Your task to perform on an android device: open app "HBO Max: Stream TV & Movies" (install if not already installed) Image 0: 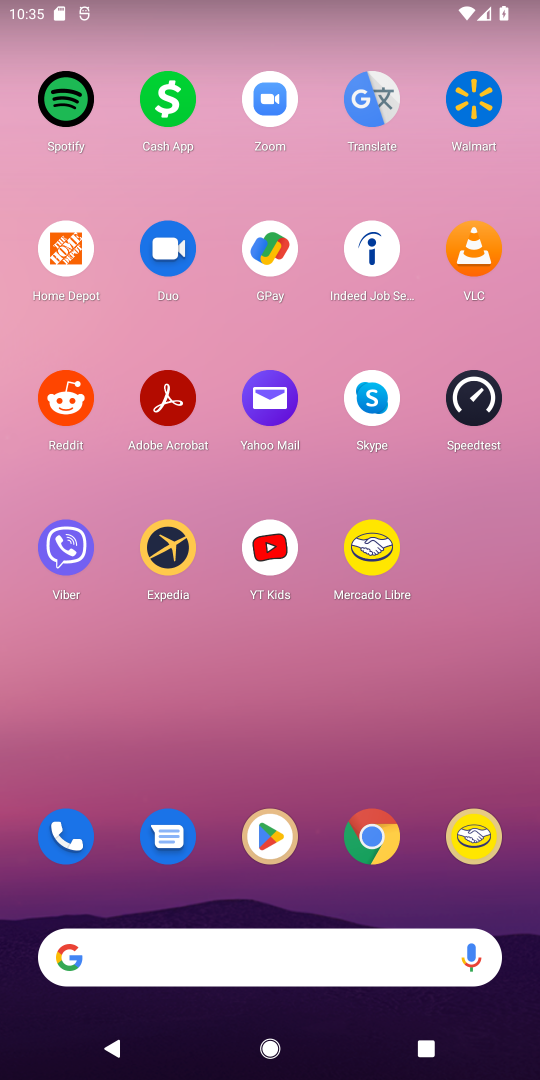
Step 0: click (247, 819)
Your task to perform on an android device: open app "HBO Max: Stream TV & Movies" (install if not already installed) Image 1: 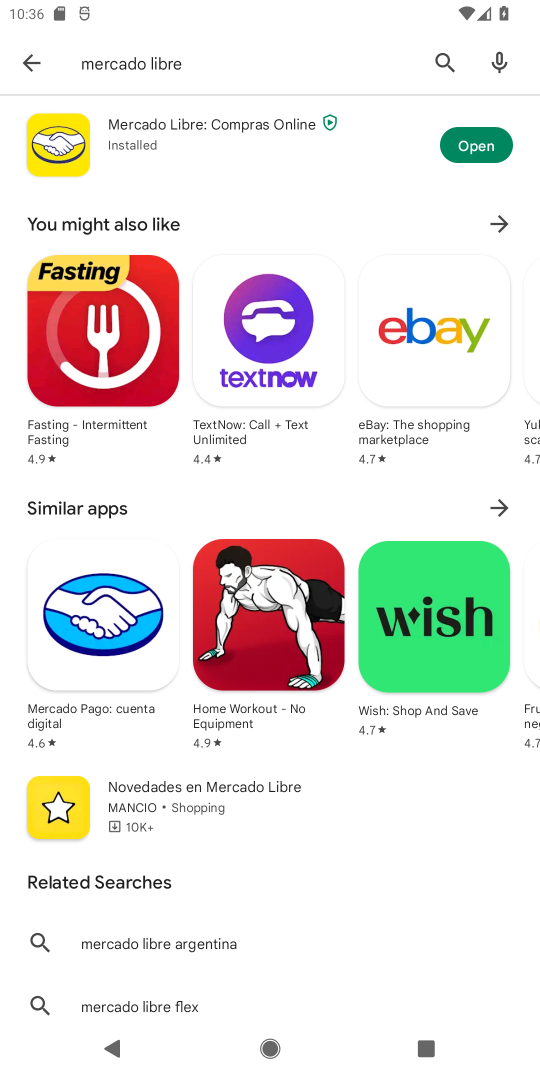
Step 1: click (474, 65)
Your task to perform on an android device: open app "HBO Max: Stream TV & Movies" (install if not already installed) Image 2: 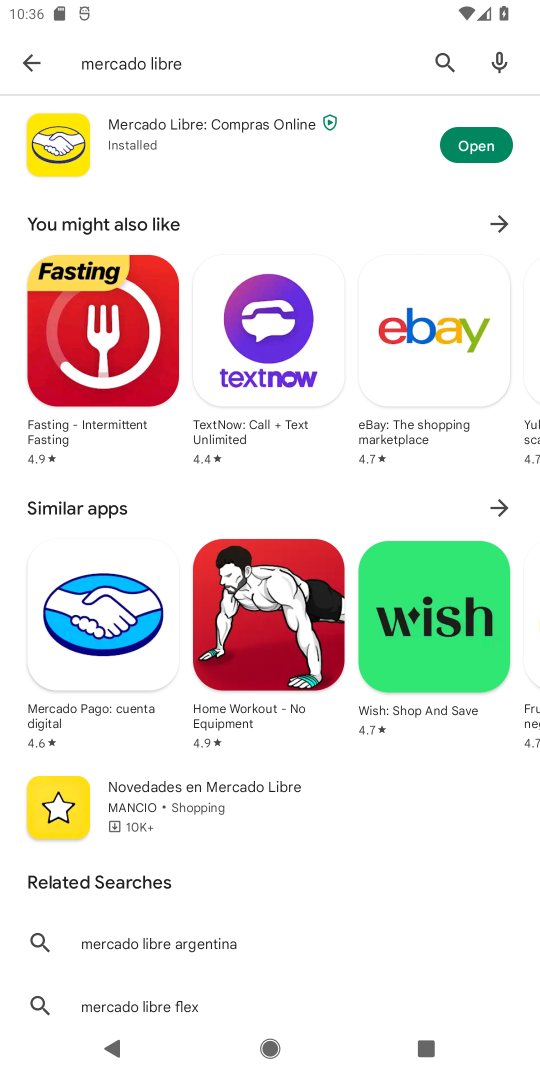
Step 2: click (442, 71)
Your task to perform on an android device: open app "HBO Max: Stream TV & Movies" (install if not already installed) Image 3: 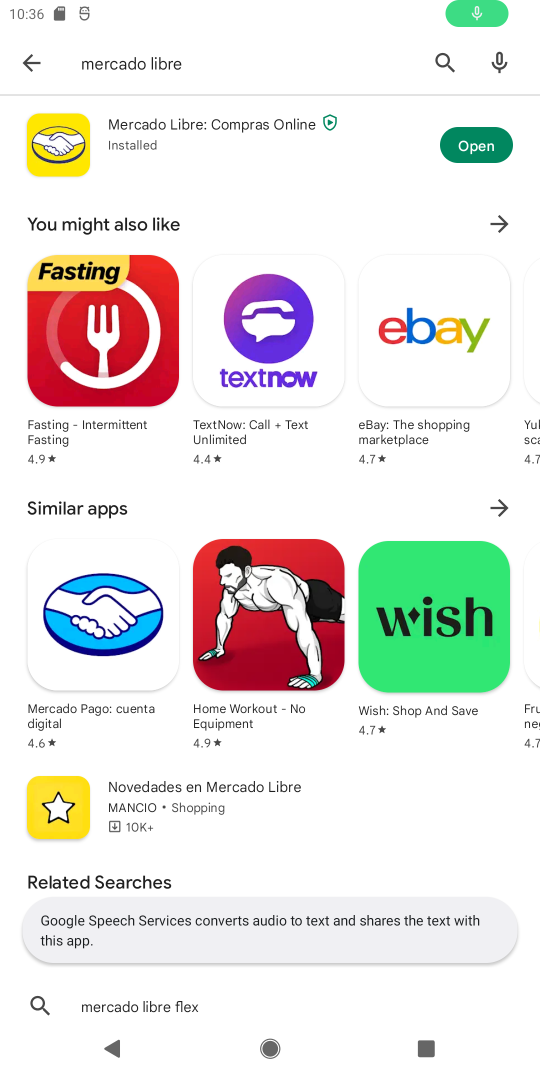
Step 3: click (440, 66)
Your task to perform on an android device: open app "HBO Max: Stream TV & Movies" (install if not already installed) Image 4: 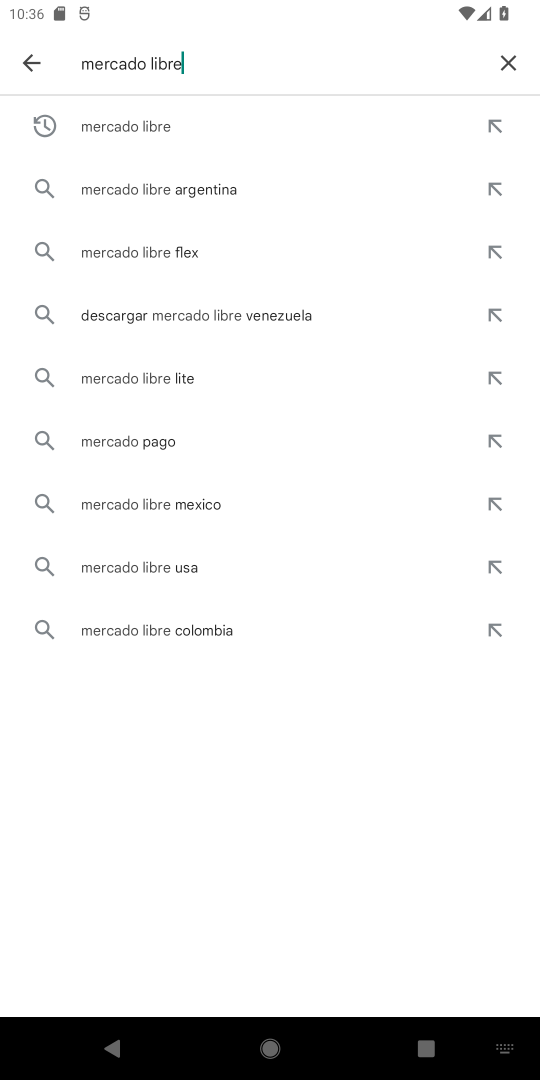
Step 4: click (513, 54)
Your task to perform on an android device: open app "HBO Max: Stream TV & Movies" (install if not already installed) Image 5: 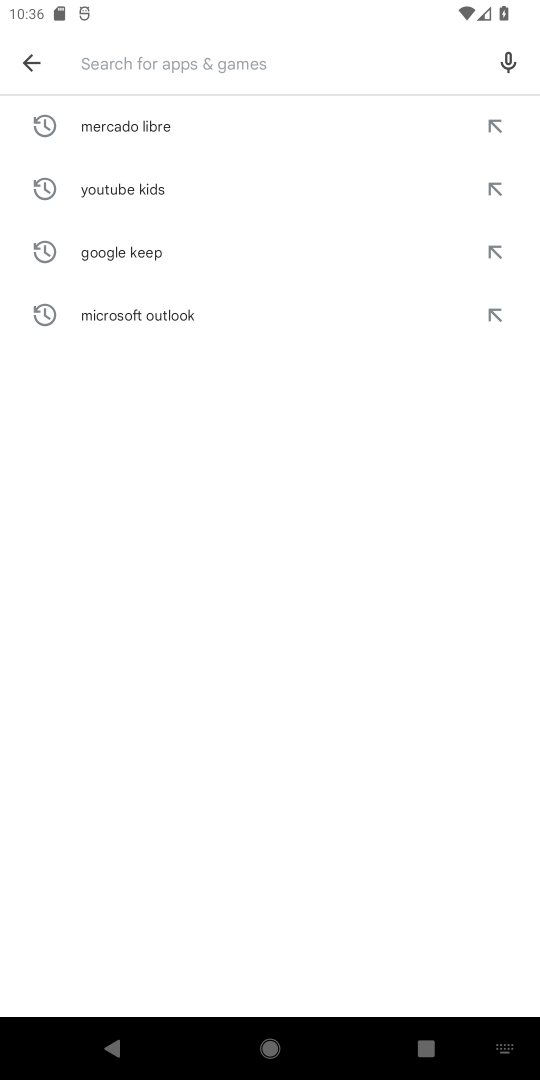
Step 5: type "HBO Max: Stream TV & Movies"
Your task to perform on an android device: open app "HBO Max: Stream TV & Movies" (install if not already installed) Image 6: 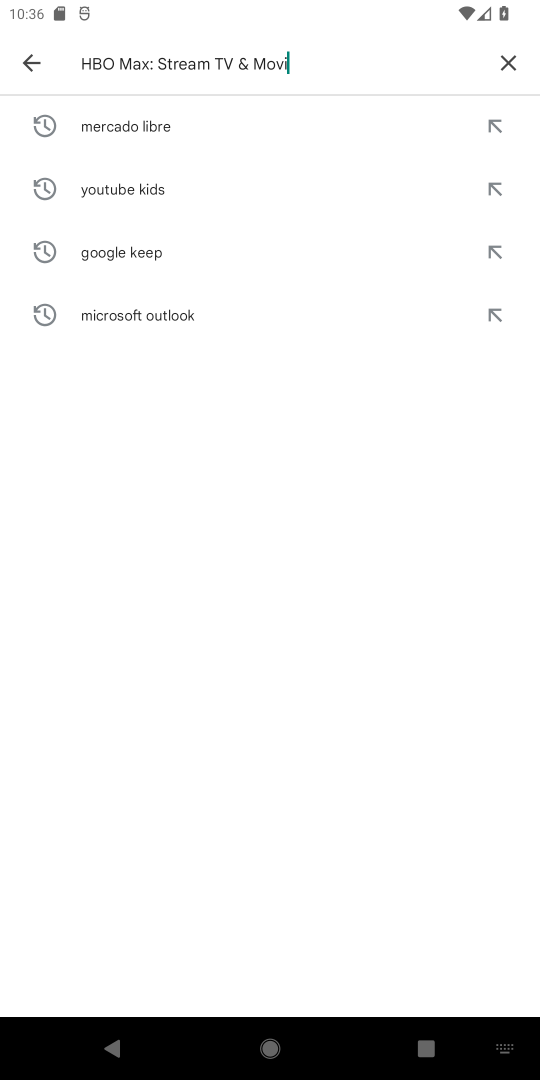
Step 6: type ""
Your task to perform on an android device: open app "HBO Max: Stream TV & Movies" (install if not already installed) Image 7: 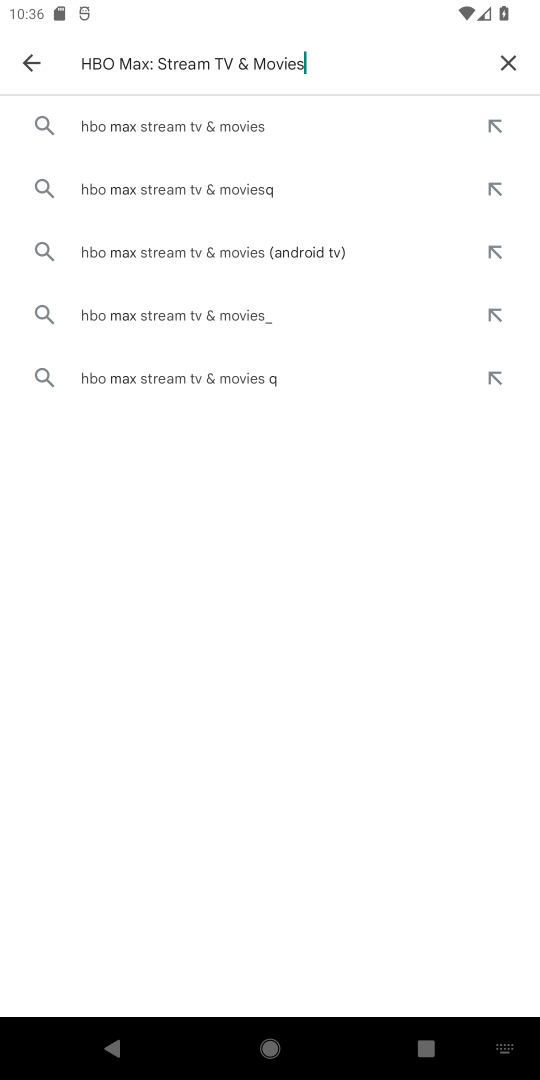
Step 7: click (168, 129)
Your task to perform on an android device: open app "HBO Max: Stream TV & Movies" (install if not already installed) Image 8: 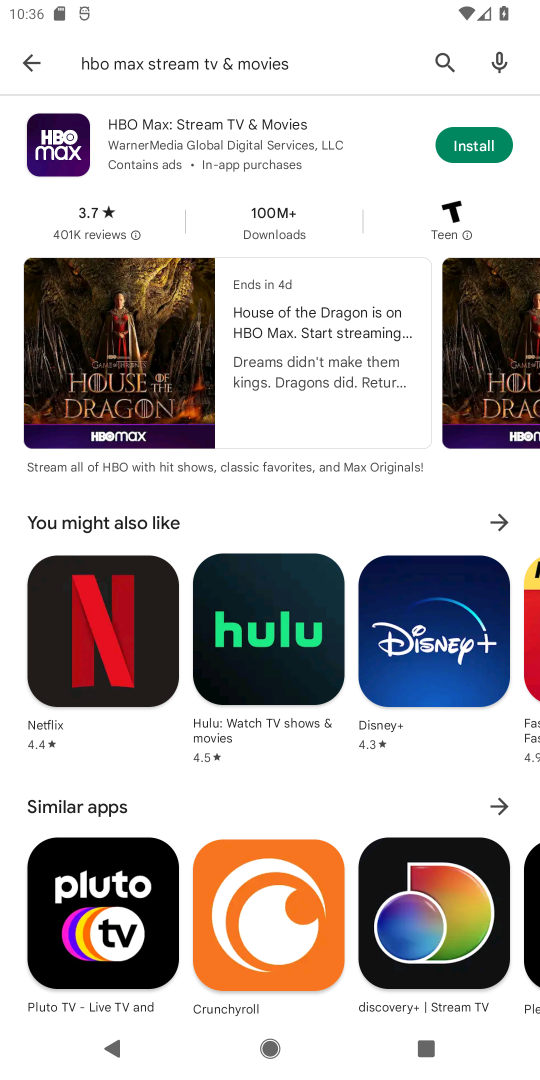
Step 8: click (459, 133)
Your task to perform on an android device: open app "HBO Max: Stream TV & Movies" (install if not already installed) Image 9: 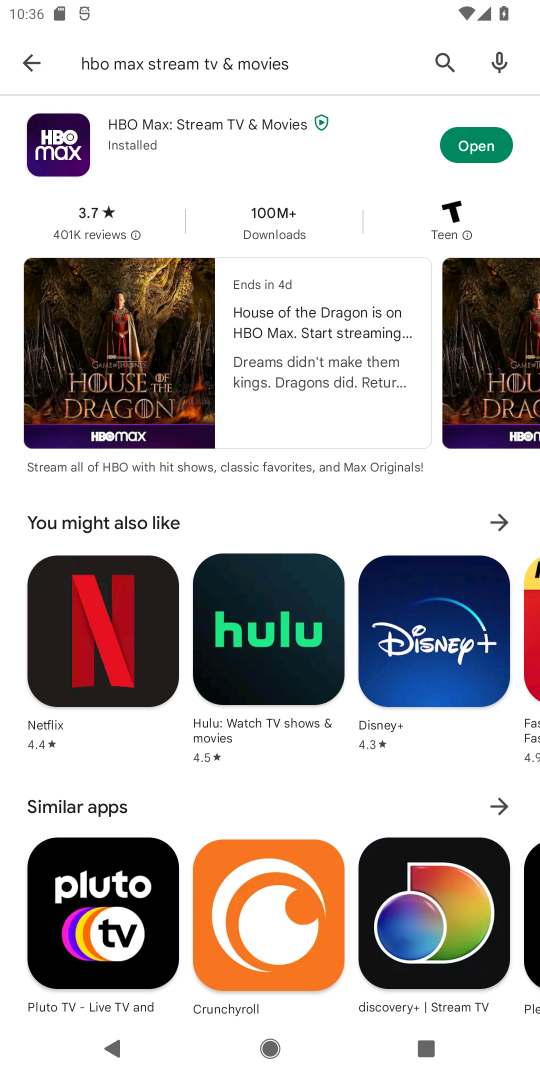
Step 9: click (449, 139)
Your task to perform on an android device: open app "HBO Max: Stream TV & Movies" (install if not already installed) Image 10: 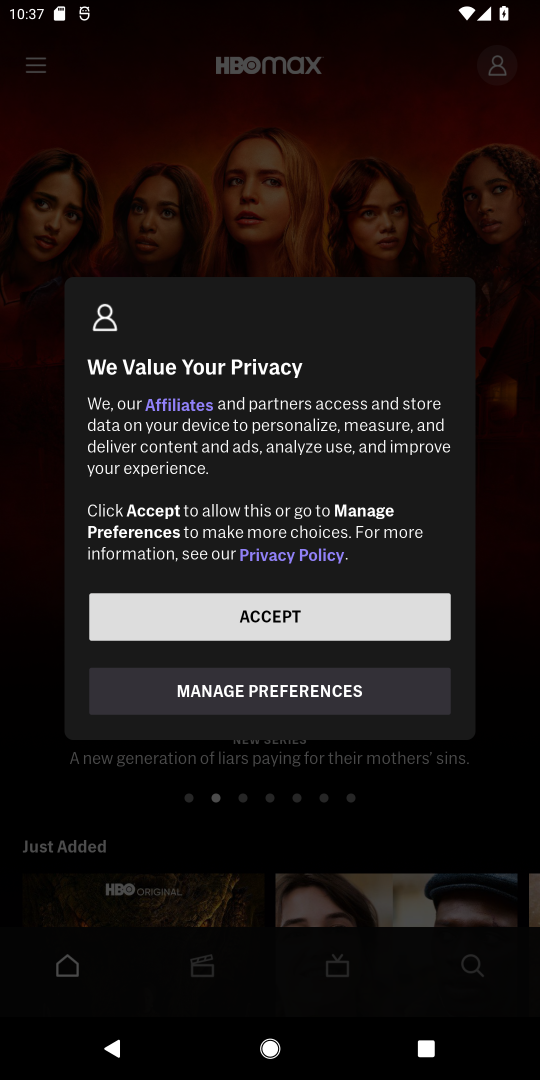
Step 10: task complete